Your task to perform on an android device: What's the weather? Image 0: 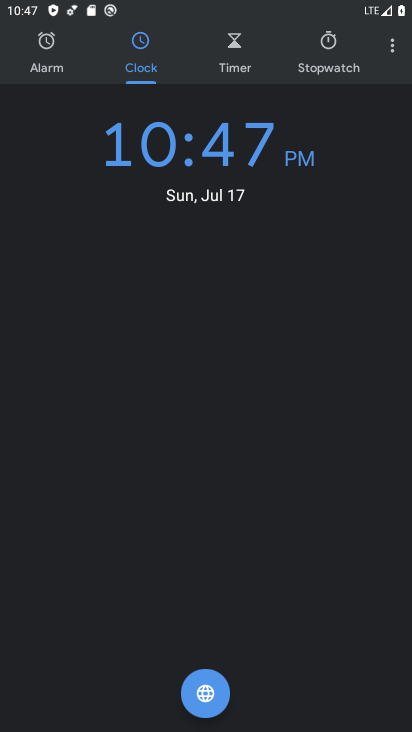
Step 0: press home button
Your task to perform on an android device: What's the weather? Image 1: 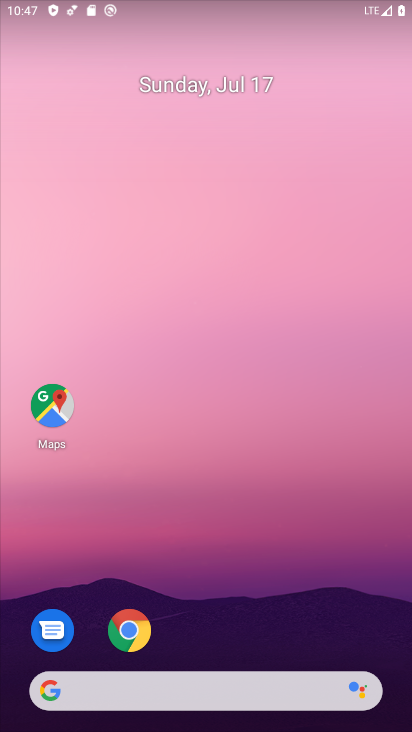
Step 1: click (212, 690)
Your task to perform on an android device: What's the weather? Image 2: 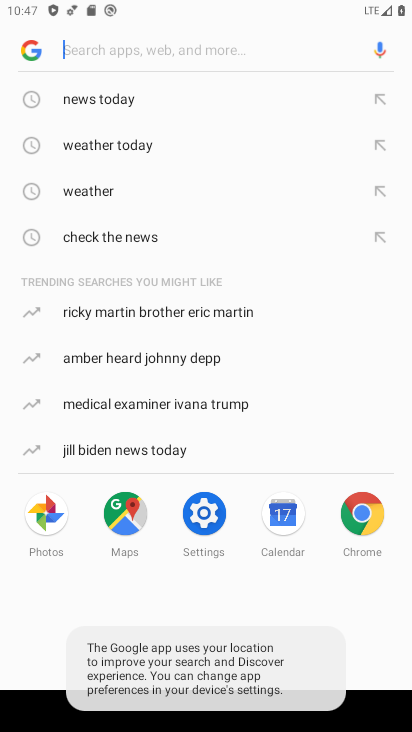
Step 2: click (89, 191)
Your task to perform on an android device: What's the weather? Image 3: 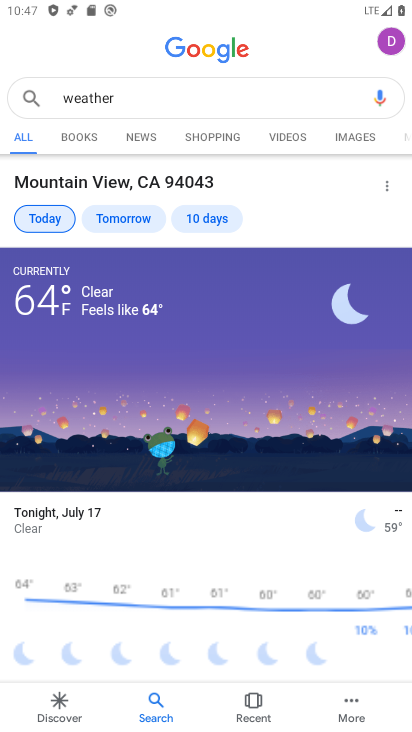
Step 3: task complete